Your task to perform on an android device: open chrome and create a bookmark for the current page Image 0: 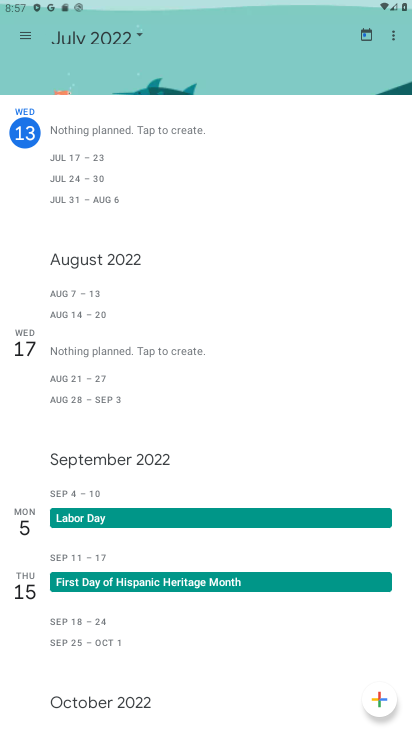
Step 0: press home button
Your task to perform on an android device: open chrome and create a bookmark for the current page Image 1: 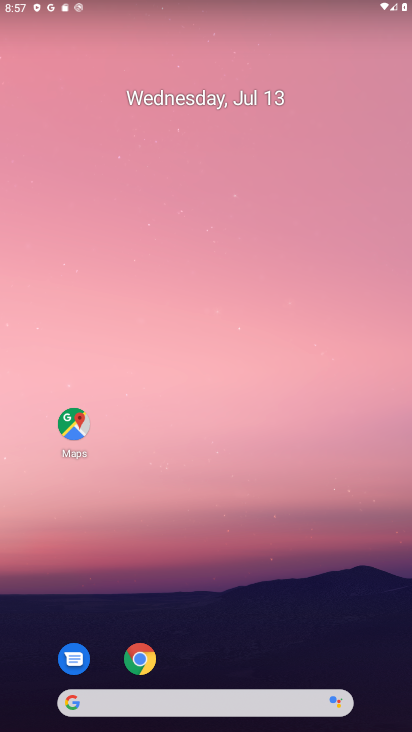
Step 1: click (143, 660)
Your task to perform on an android device: open chrome and create a bookmark for the current page Image 2: 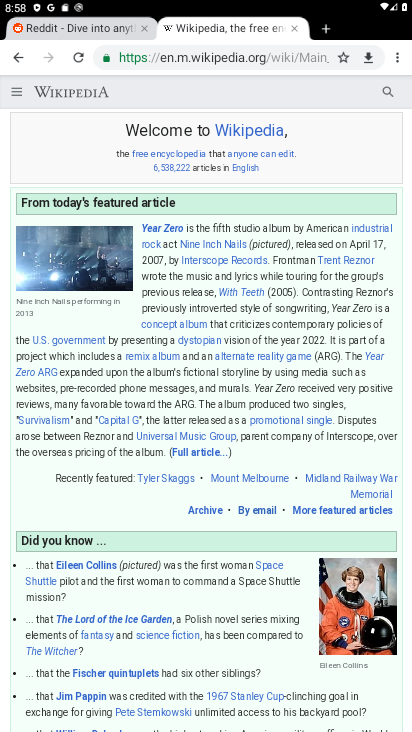
Step 2: click (343, 53)
Your task to perform on an android device: open chrome and create a bookmark for the current page Image 3: 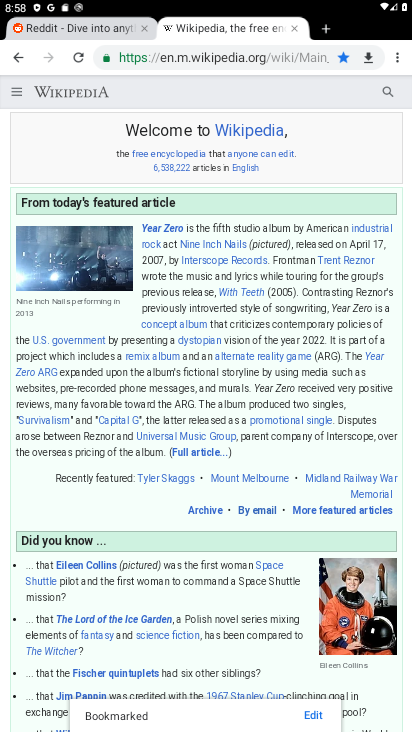
Step 3: task complete